Your task to perform on an android device: delete the emails in spam in the gmail app Image 0: 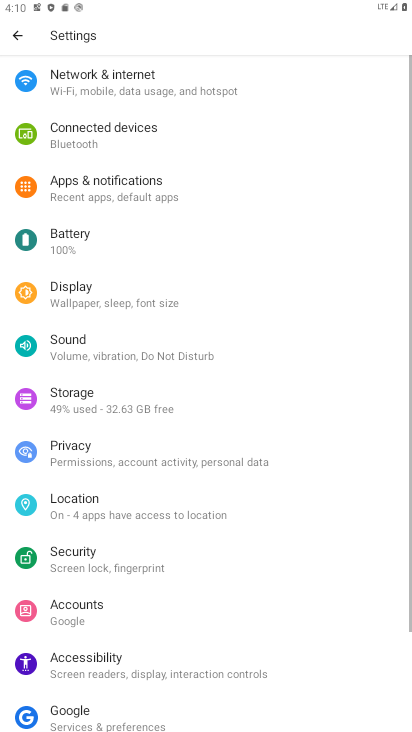
Step 0: press home button
Your task to perform on an android device: delete the emails in spam in the gmail app Image 1: 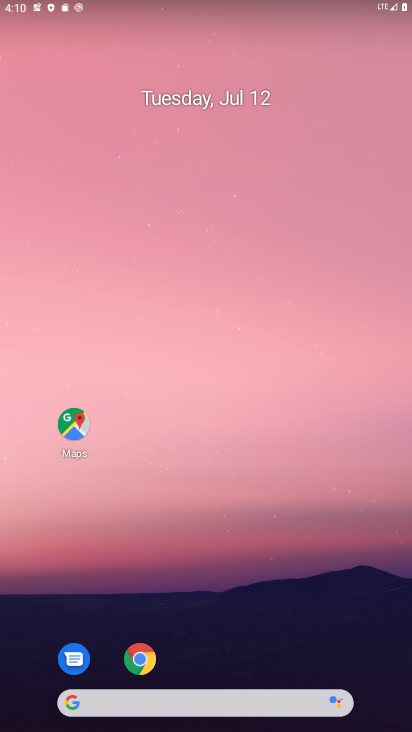
Step 1: drag from (225, 720) to (231, 276)
Your task to perform on an android device: delete the emails in spam in the gmail app Image 2: 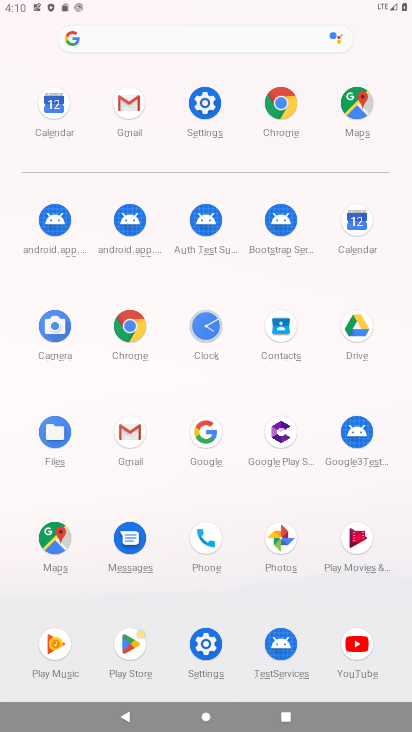
Step 2: click (125, 428)
Your task to perform on an android device: delete the emails in spam in the gmail app Image 3: 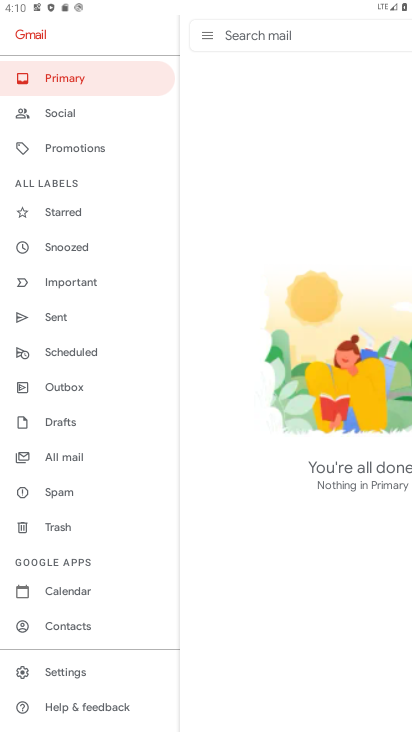
Step 3: click (125, 427)
Your task to perform on an android device: delete the emails in spam in the gmail app Image 4: 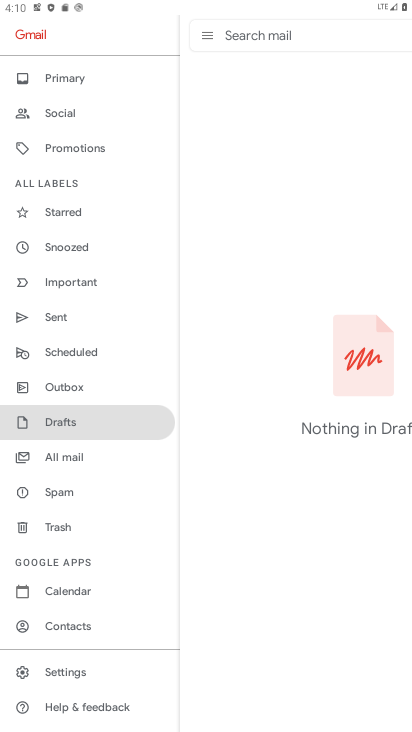
Step 4: click (65, 76)
Your task to perform on an android device: delete the emails in spam in the gmail app Image 5: 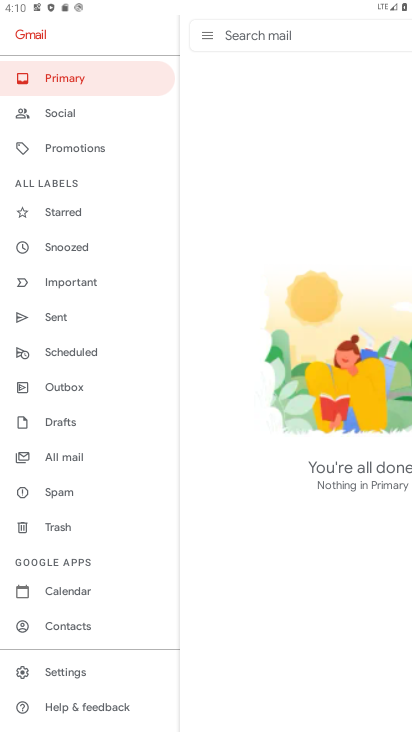
Step 5: click (54, 487)
Your task to perform on an android device: delete the emails in spam in the gmail app Image 6: 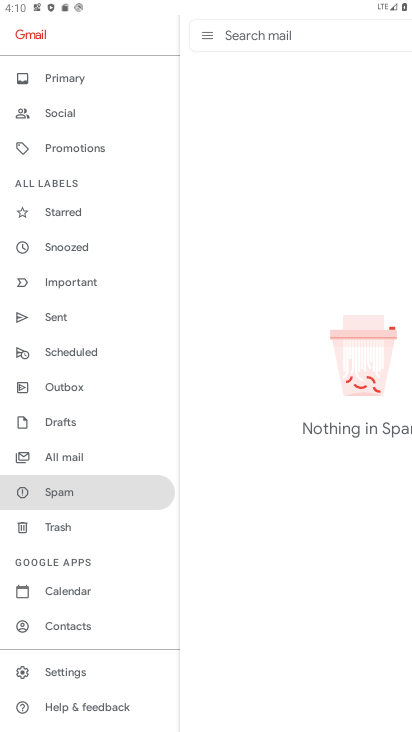
Step 6: click (54, 487)
Your task to perform on an android device: delete the emails in spam in the gmail app Image 7: 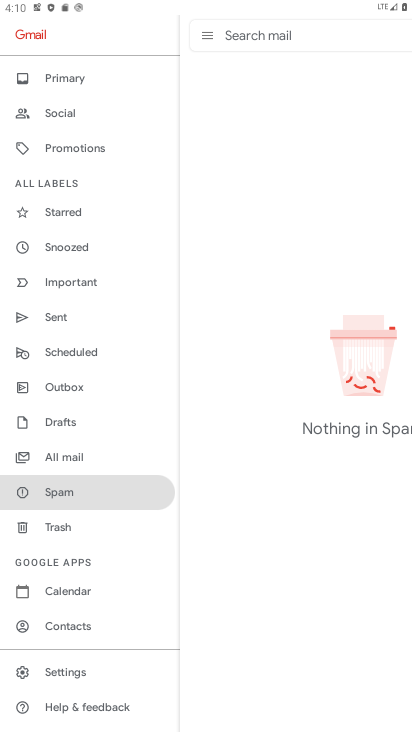
Step 7: click (54, 487)
Your task to perform on an android device: delete the emails in spam in the gmail app Image 8: 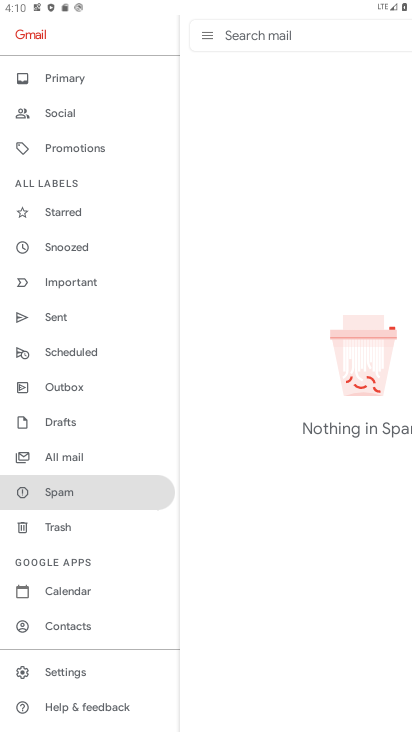
Step 8: task complete